Your task to perform on an android device: turn off wifi Image 0: 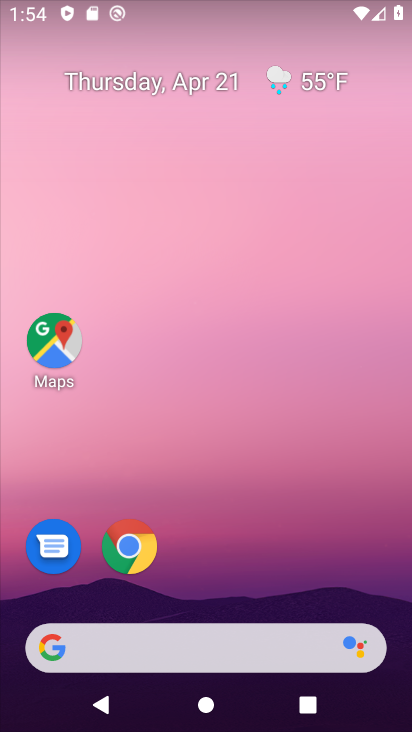
Step 0: drag from (153, 9) to (125, 662)
Your task to perform on an android device: turn off wifi Image 1: 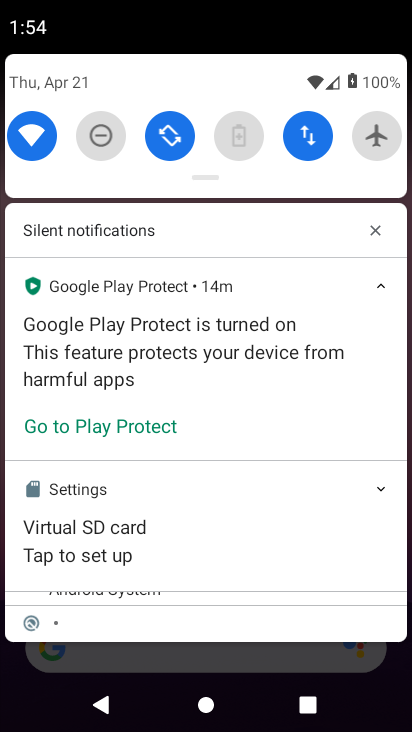
Step 1: click (34, 130)
Your task to perform on an android device: turn off wifi Image 2: 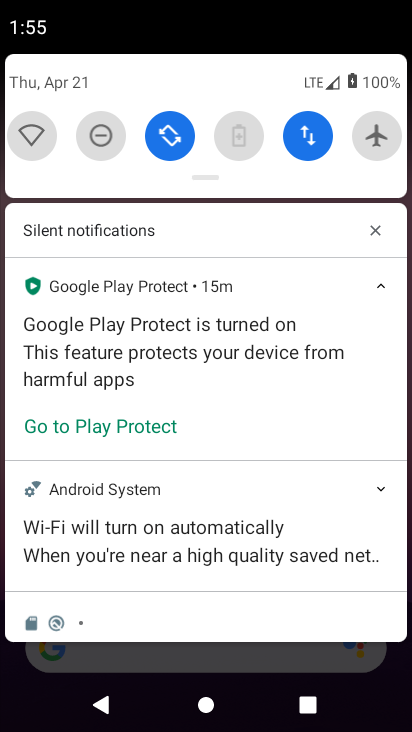
Step 2: task complete